Your task to perform on an android device: Search for the best-rated coffee table on Crate & Barrel Image 0: 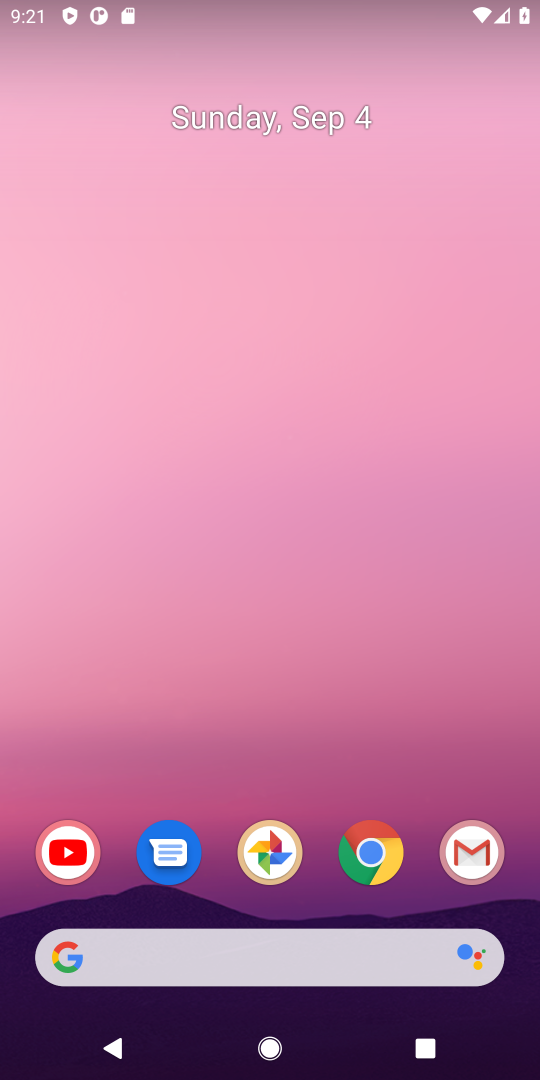
Step 0: click (216, 53)
Your task to perform on an android device: Search for the best-rated coffee table on Crate & Barrel Image 1: 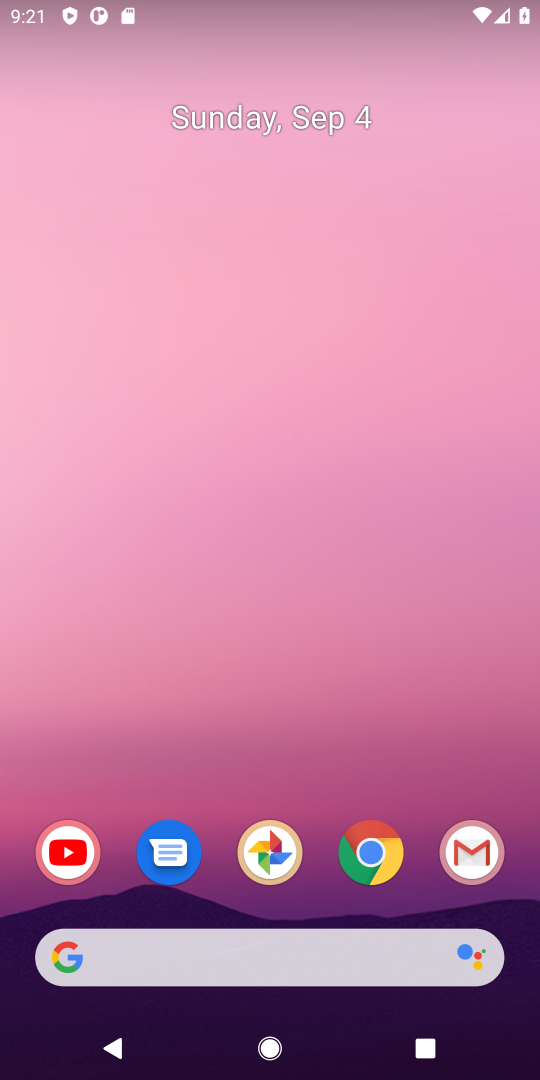
Step 1: drag from (440, 774) to (260, 185)
Your task to perform on an android device: Search for the best-rated coffee table on Crate & Barrel Image 2: 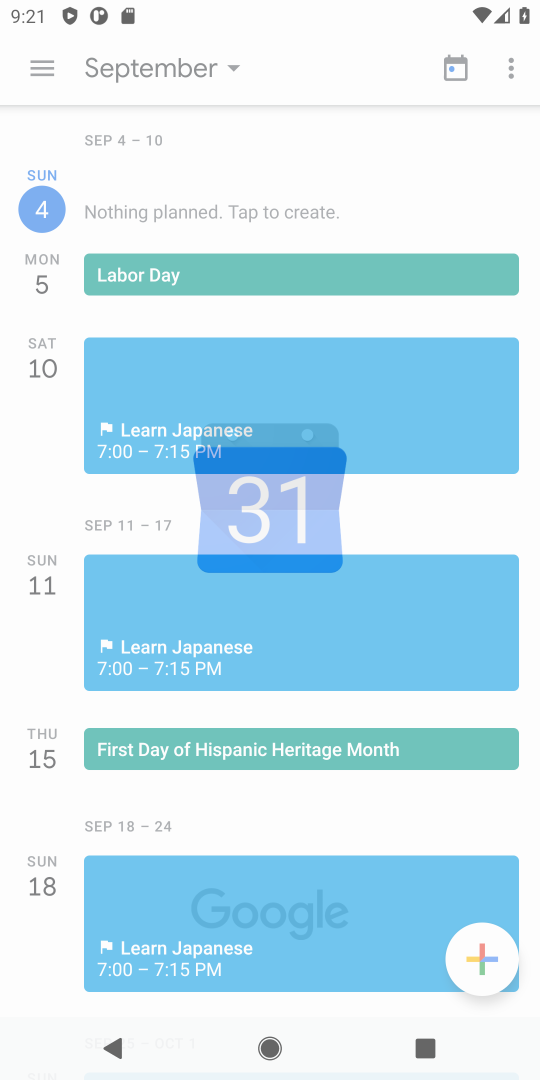
Step 2: press home button
Your task to perform on an android device: Search for the best-rated coffee table on Crate & Barrel Image 3: 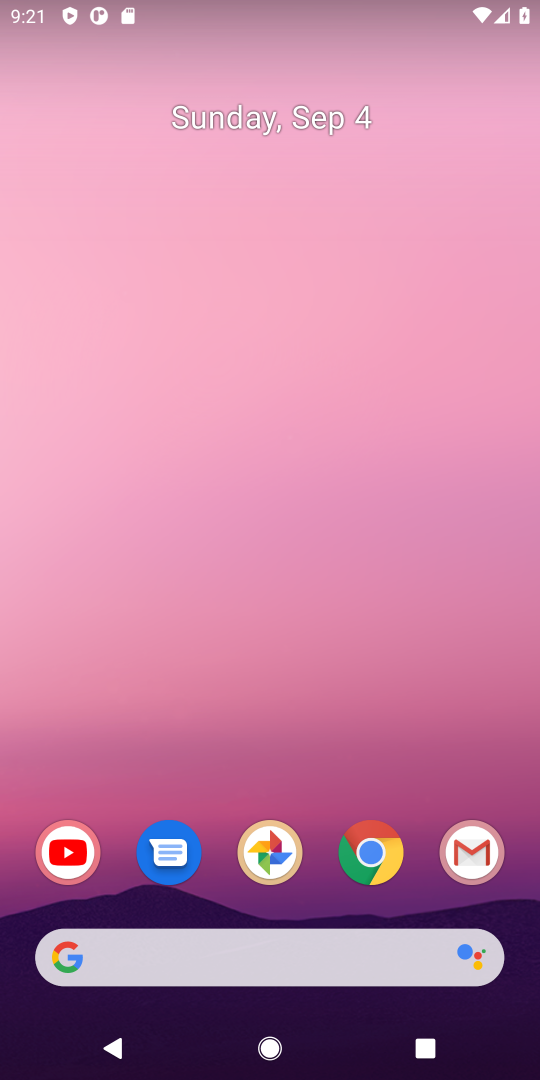
Step 3: drag from (420, 882) to (259, 120)
Your task to perform on an android device: Search for the best-rated coffee table on Crate & Barrel Image 4: 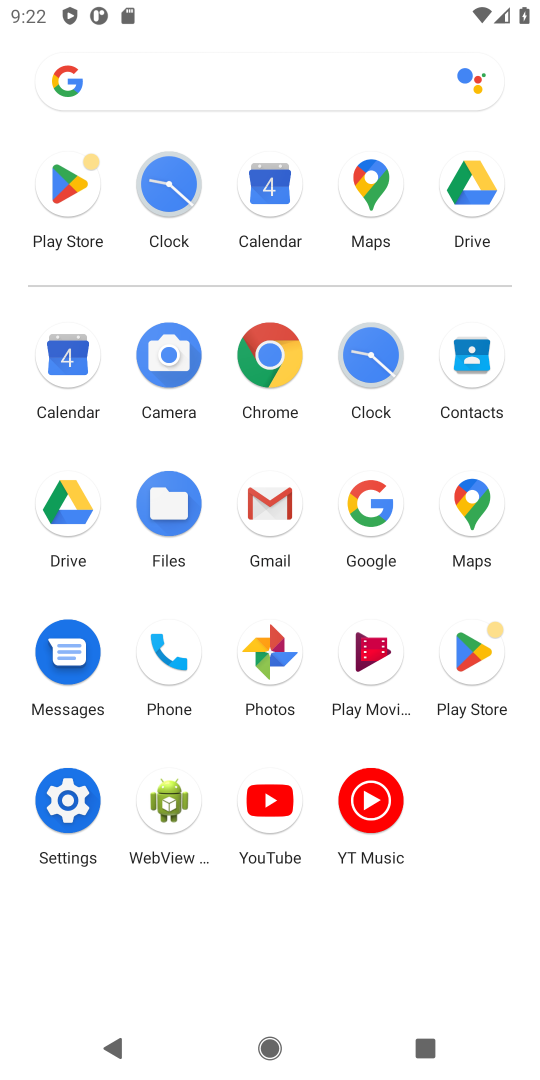
Step 4: click (371, 518)
Your task to perform on an android device: Search for the best-rated coffee table on Crate & Barrel Image 5: 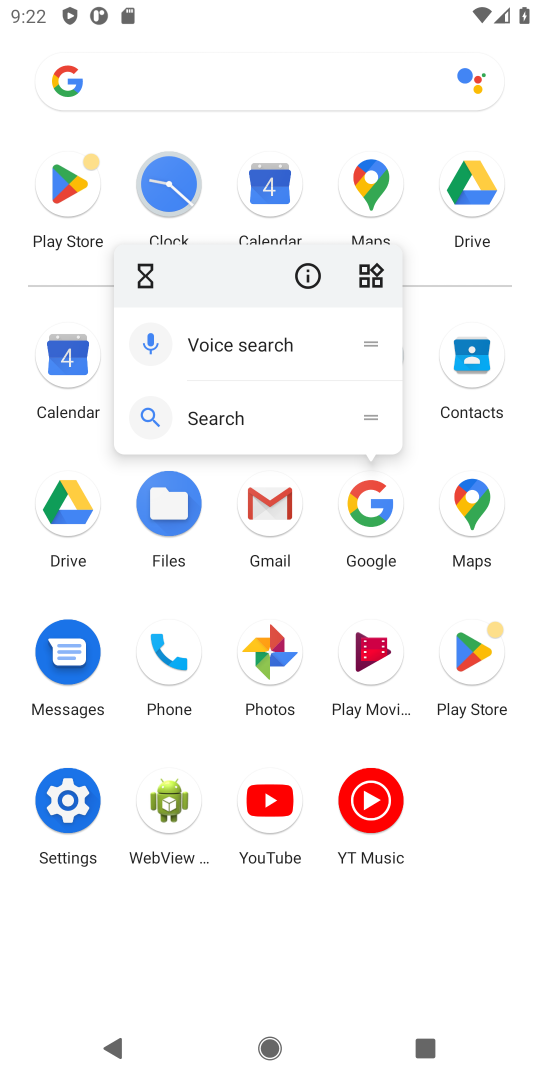
Step 5: click (369, 517)
Your task to perform on an android device: Search for the best-rated coffee table on Crate & Barrel Image 6: 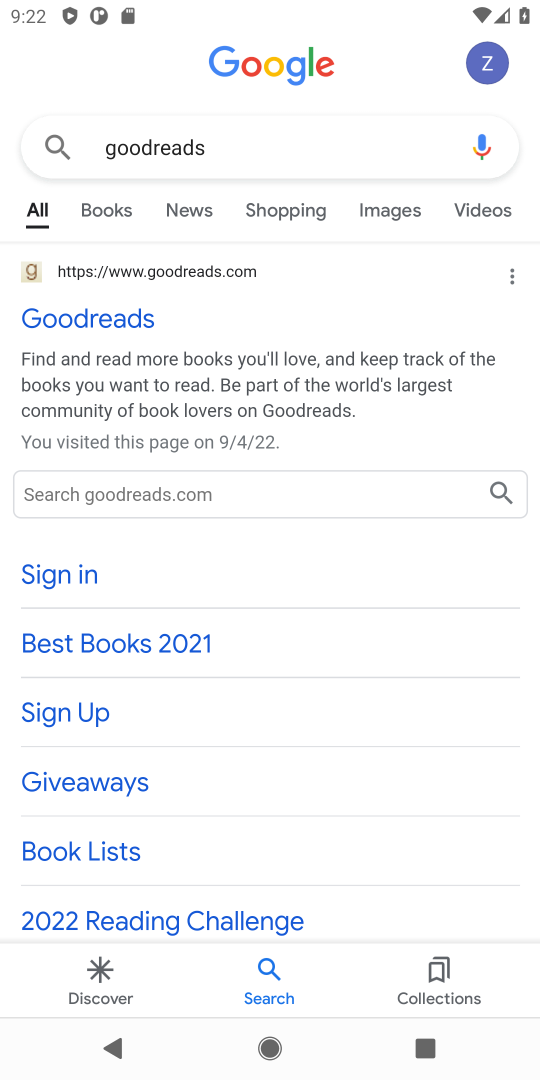
Step 6: press back button
Your task to perform on an android device: Search for the best-rated coffee table on Crate & Barrel Image 7: 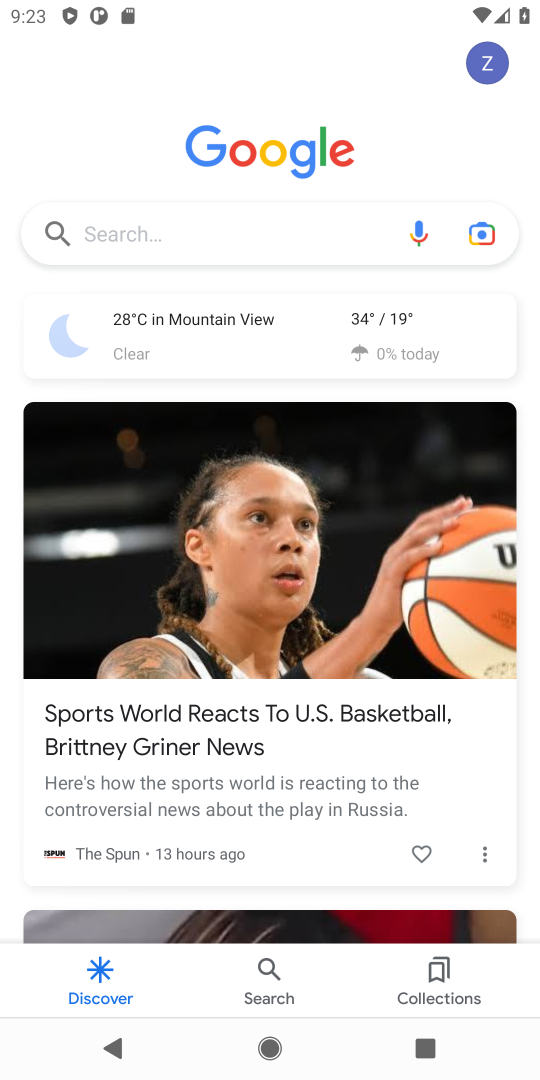
Step 7: click (159, 229)
Your task to perform on an android device: Search for the best-rated coffee table on Crate & Barrel Image 8: 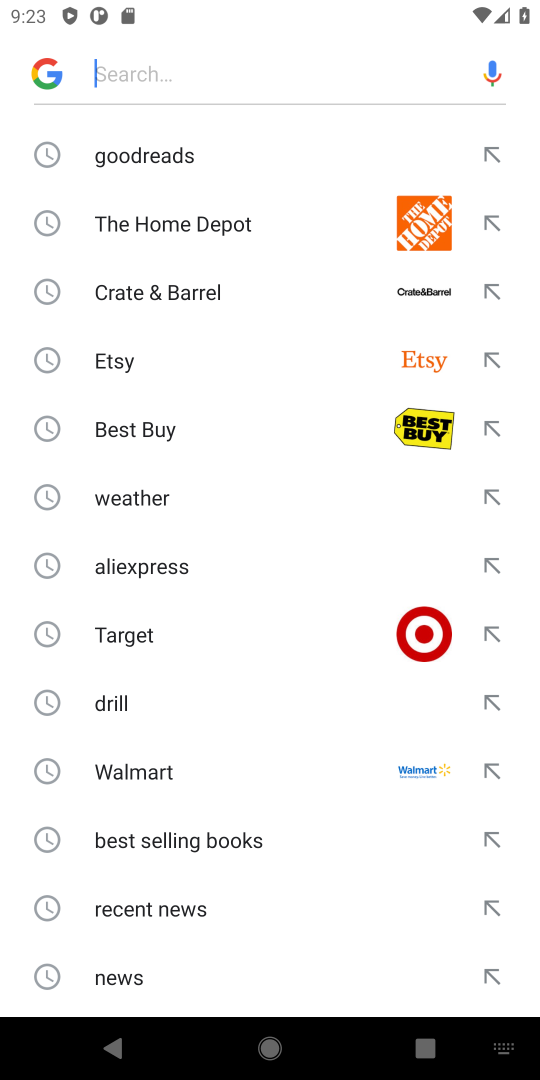
Step 8: click (162, 289)
Your task to perform on an android device: Search for the best-rated coffee table on Crate & Barrel Image 9: 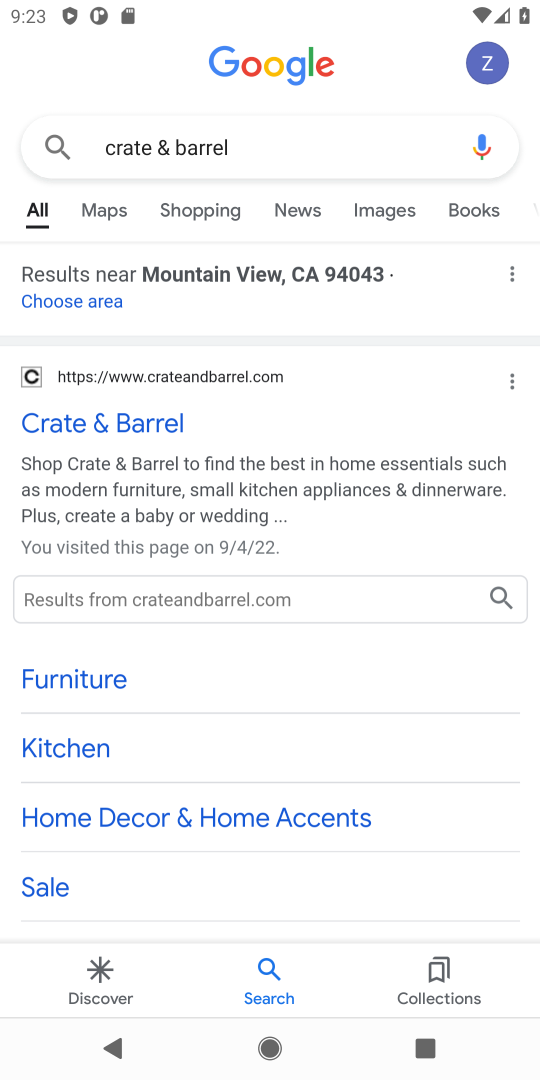
Step 9: click (134, 421)
Your task to perform on an android device: Search for the best-rated coffee table on Crate & Barrel Image 10: 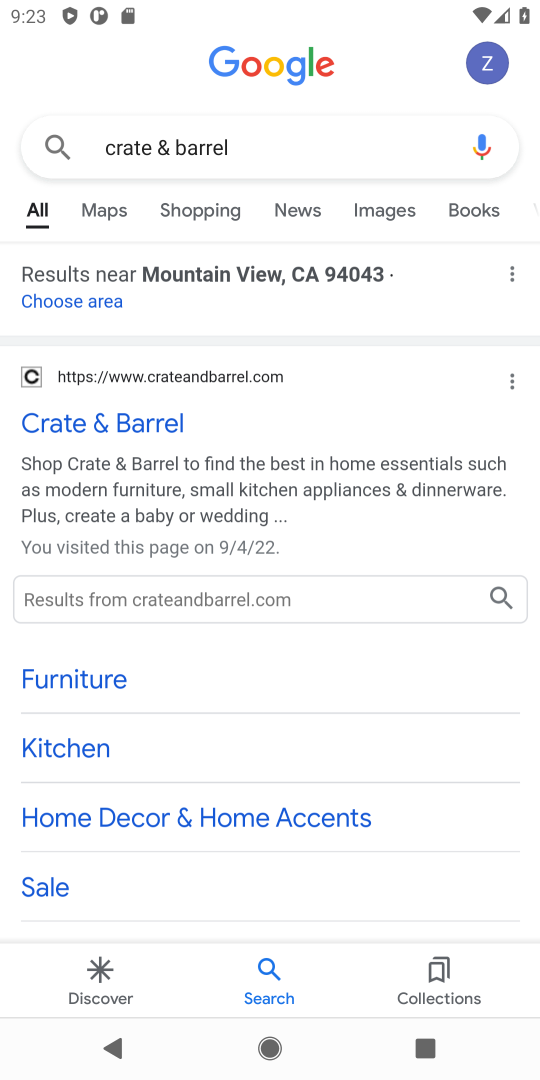
Step 10: click (134, 421)
Your task to perform on an android device: Search for the best-rated coffee table on Crate & Barrel Image 11: 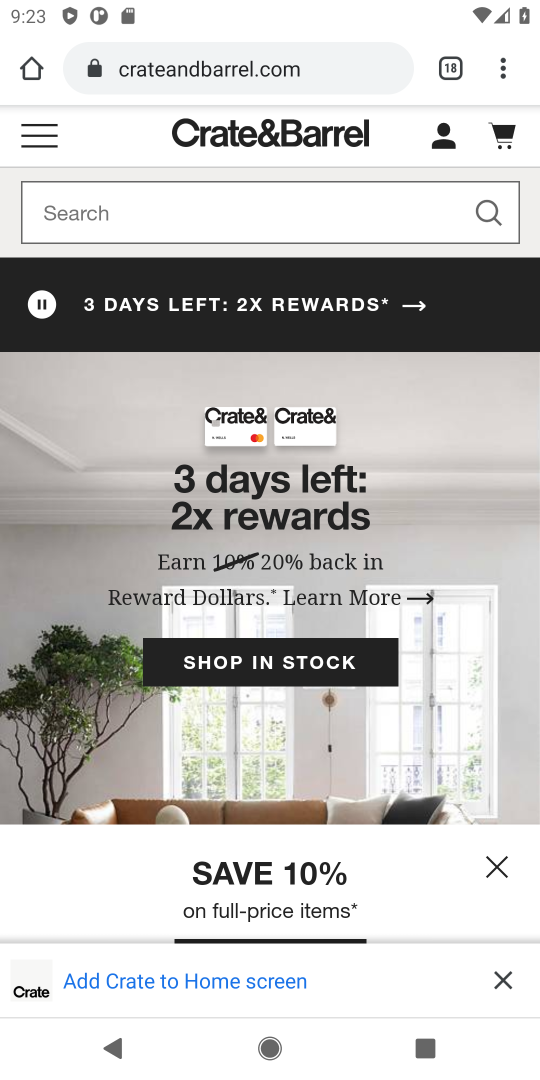
Step 11: click (155, 223)
Your task to perform on an android device: Search for the best-rated coffee table on Crate & Barrel Image 12: 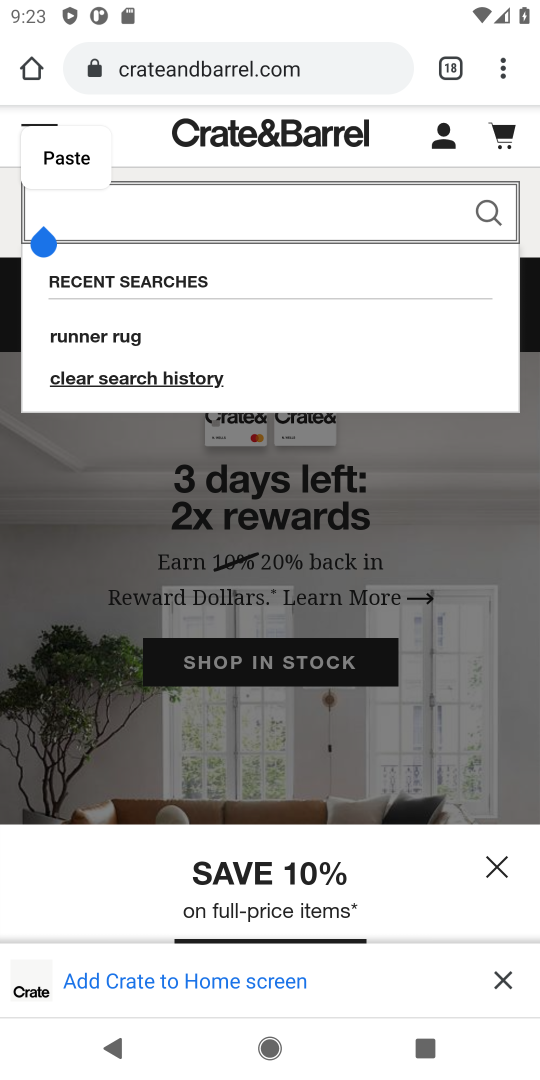
Step 12: type " coffee table"
Your task to perform on an android device: Search for the best-rated coffee table on Crate & Barrel Image 13: 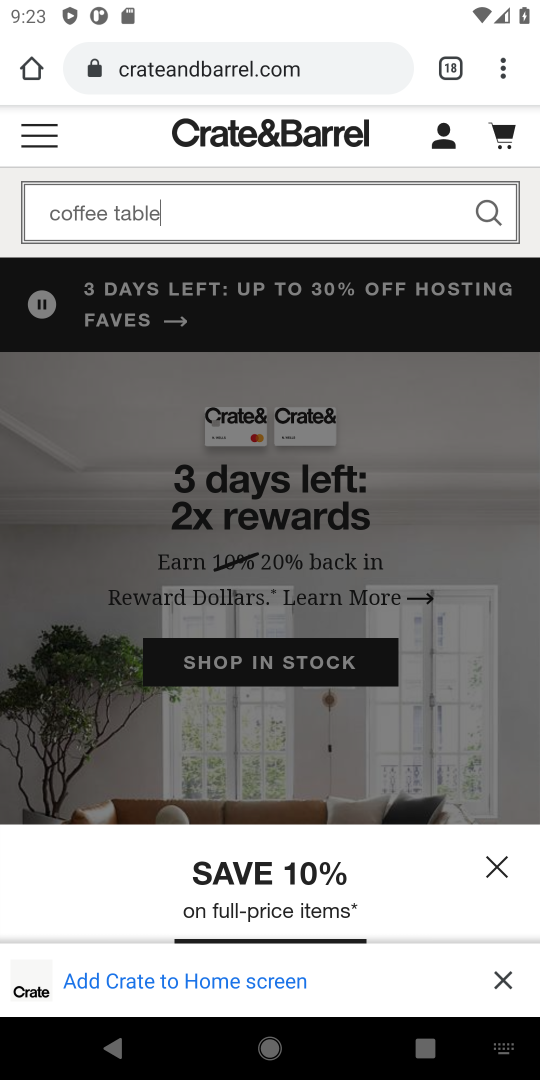
Step 13: click (477, 217)
Your task to perform on an android device: Search for the best-rated coffee table on Crate & Barrel Image 14: 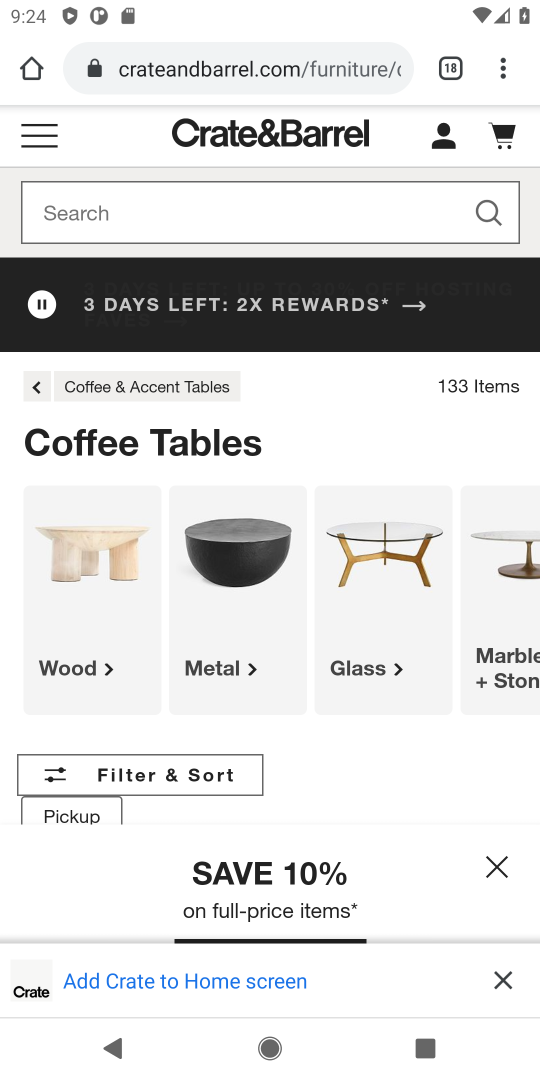
Step 14: task complete